Your task to perform on an android device: Go to display settings Image 0: 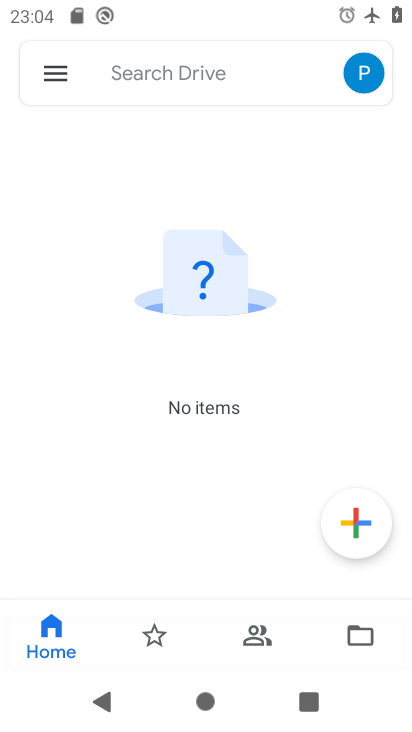
Step 0: press home button
Your task to perform on an android device: Go to display settings Image 1: 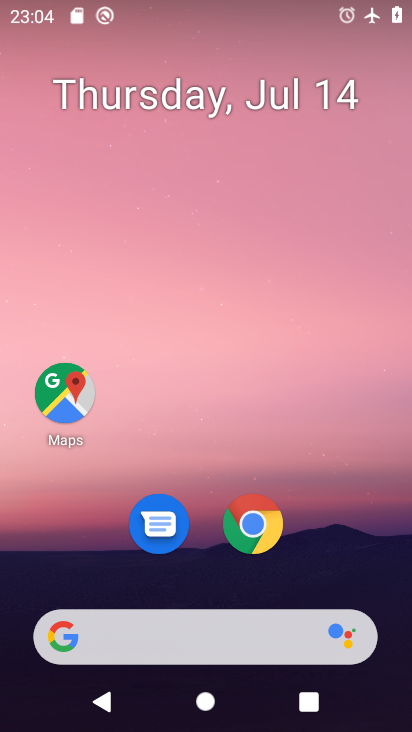
Step 1: drag from (333, 535) to (351, 71)
Your task to perform on an android device: Go to display settings Image 2: 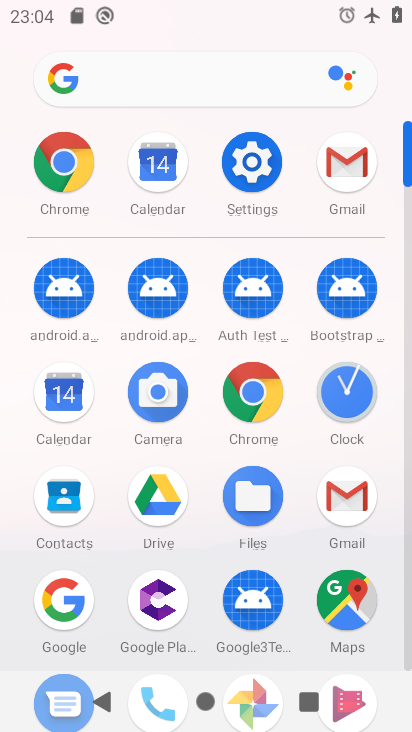
Step 2: click (252, 177)
Your task to perform on an android device: Go to display settings Image 3: 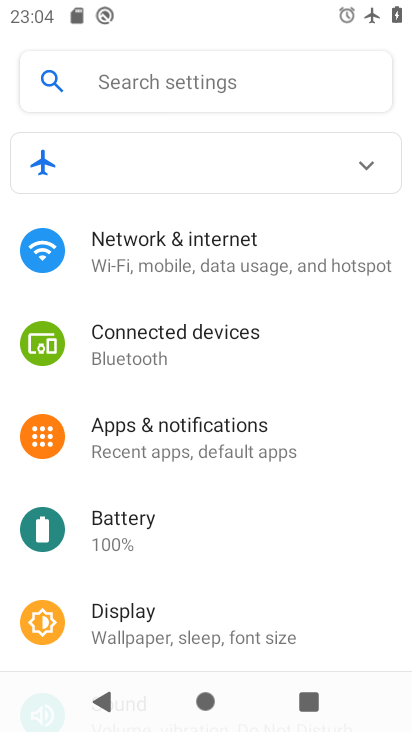
Step 3: click (161, 615)
Your task to perform on an android device: Go to display settings Image 4: 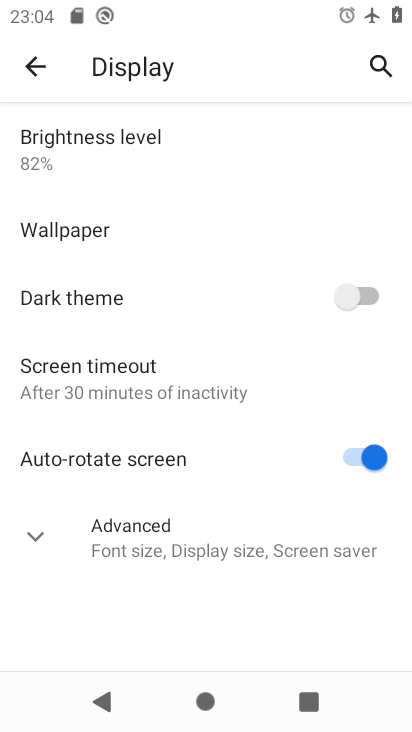
Step 4: task complete